Your task to perform on an android device: Open calendar and show me the third week of next month Image 0: 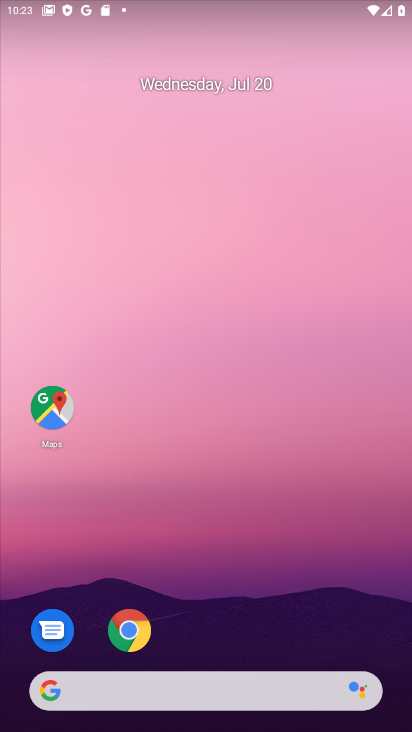
Step 0: drag from (171, 596) to (170, 10)
Your task to perform on an android device: Open calendar and show me the third week of next month Image 1: 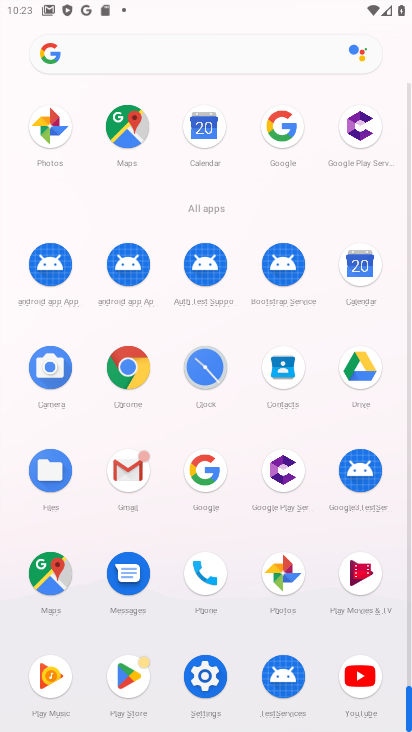
Step 1: drag from (172, 592) to (153, 332)
Your task to perform on an android device: Open calendar and show me the third week of next month Image 2: 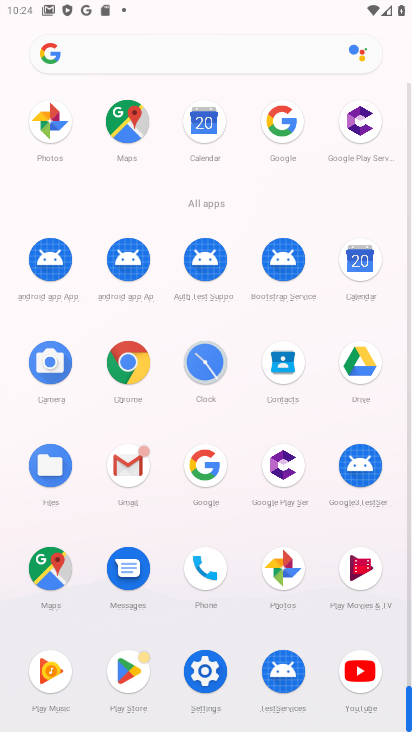
Step 2: click (359, 269)
Your task to perform on an android device: Open calendar and show me the third week of next month Image 3: 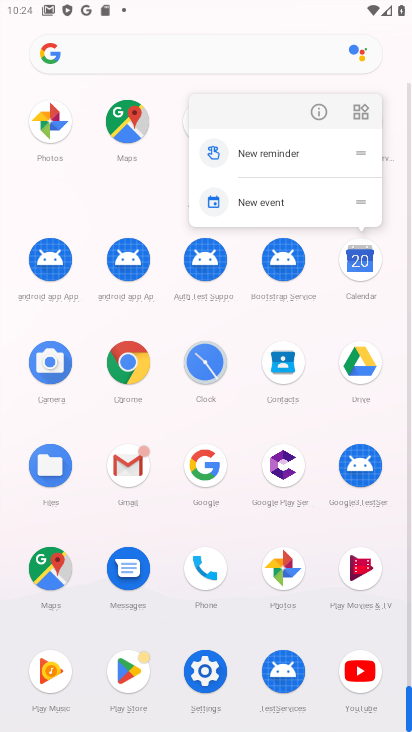
Step 3: click (308, 109)
Your task to perform on an android device: Open calendar and show me the third week of next month Image 4: 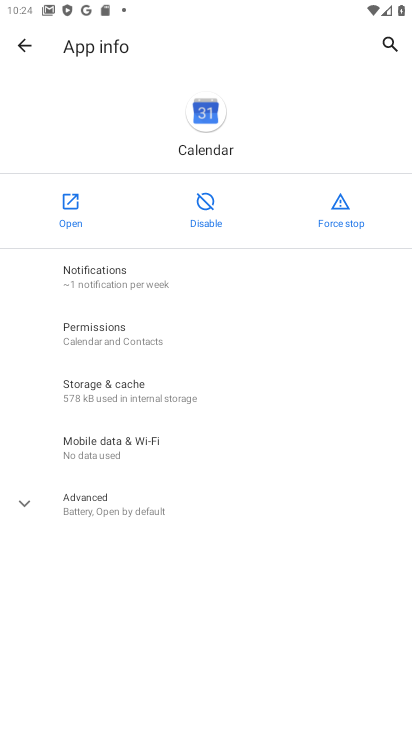
Step 4: click (80, 197)
Your task to perform on an android device: Open calendar and show me the third week of next month Image 5: 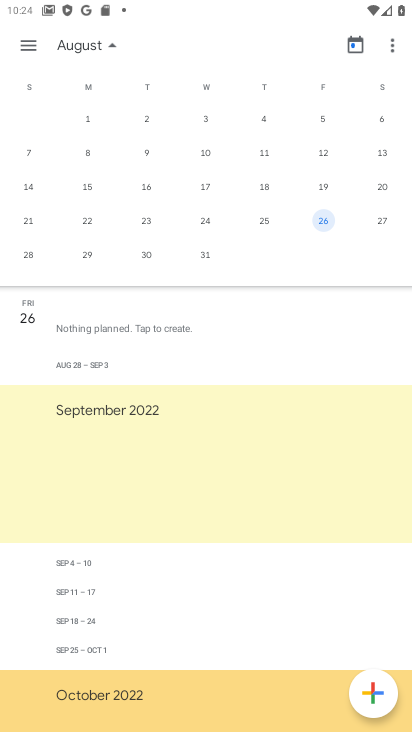
Step 5: drag from (172, 553) to (208, 166)
Your task to perform on an android device: Open calendar and show me the third week of next month Image 6: 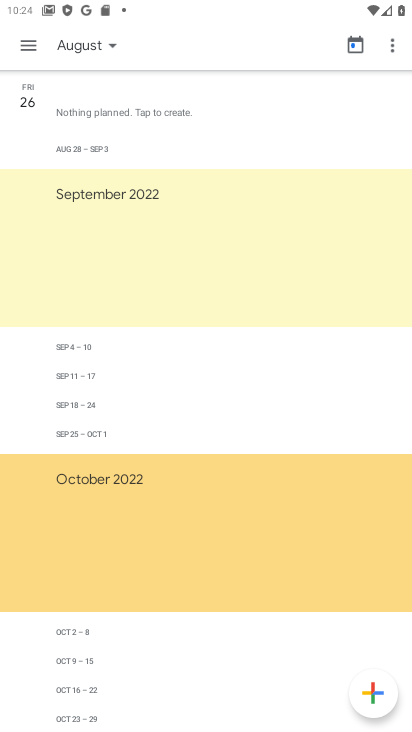
Step 6: click (350, 49)
Your task to perform on an android device: Open calendar and show me the third week of next month Image 7: 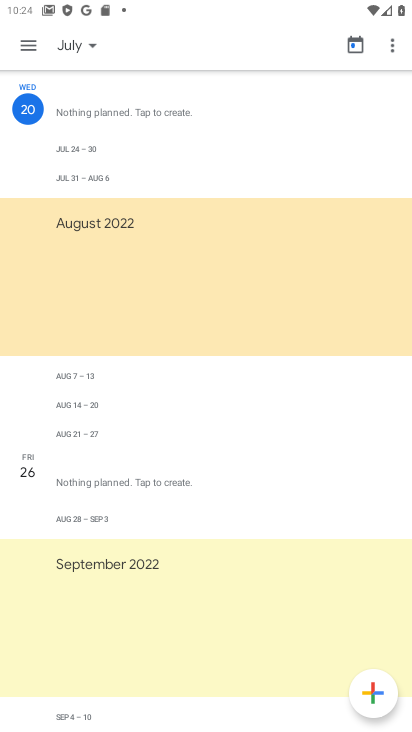
Step 7: click (79, 36)
Your task to perform on an android device: Open calendar and show me the third week of next month Image 8: 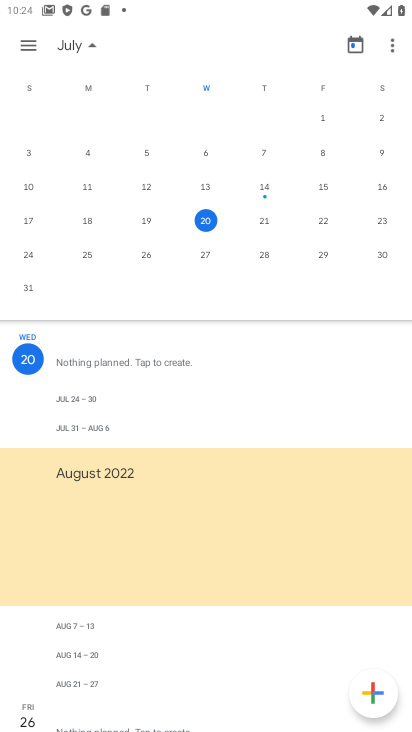
Step 8: drag from (340, 179) to (2, 206)
Your task to perform on an android device: Open calendar and show me the third week of next month Image 9: 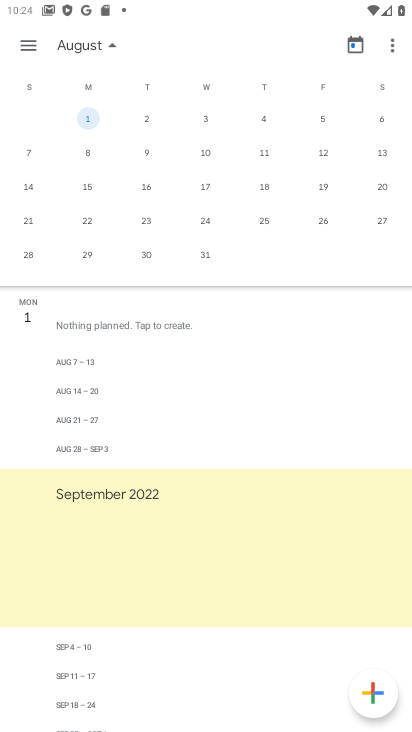
Step 9: click (325, 187)
Your task to perform on an android device: Open calendar and show me the third week of next month Image 10: 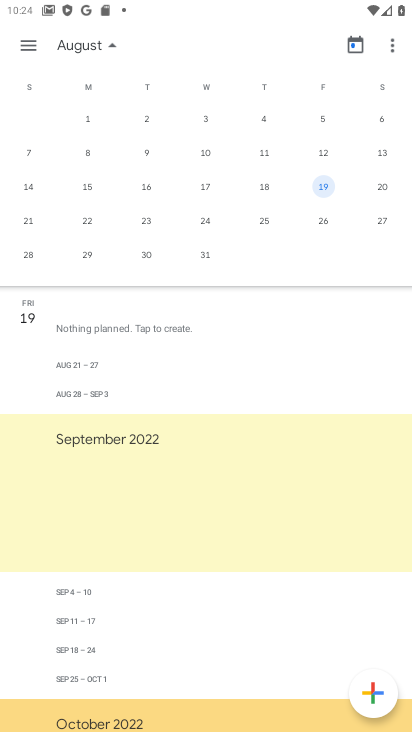
Step 10: task complete